Your task to perform on an android device: When is my next meeting? Image 0: 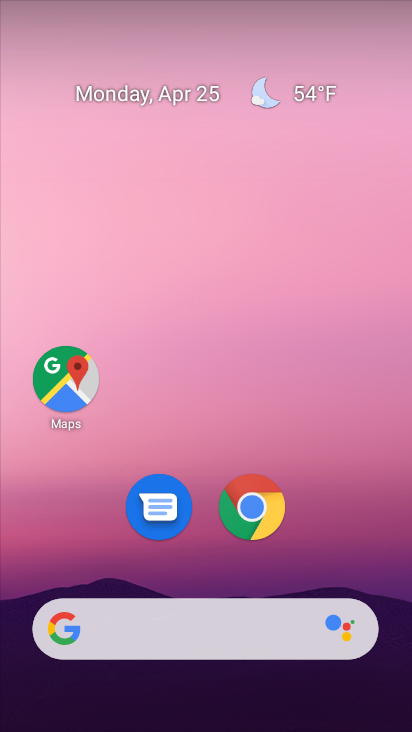
Step 0: drag from (337, 514) to (269, 48)
Your task to perform on an android device: When is my next meeting? Image 1: 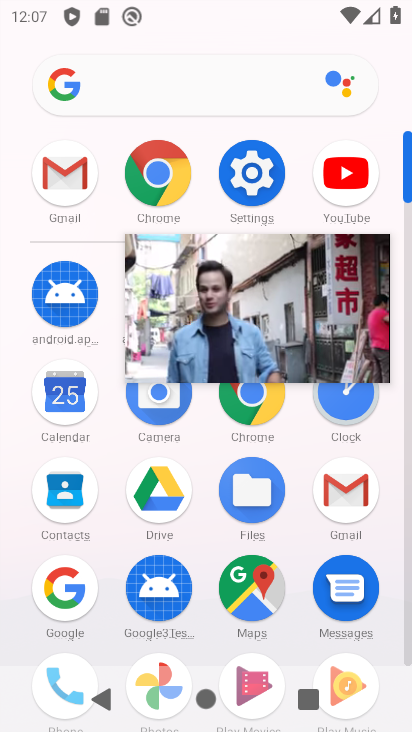
Step 1: click (289, 271)
Your task to perform on an android device: When is my next meeting? Image 2: 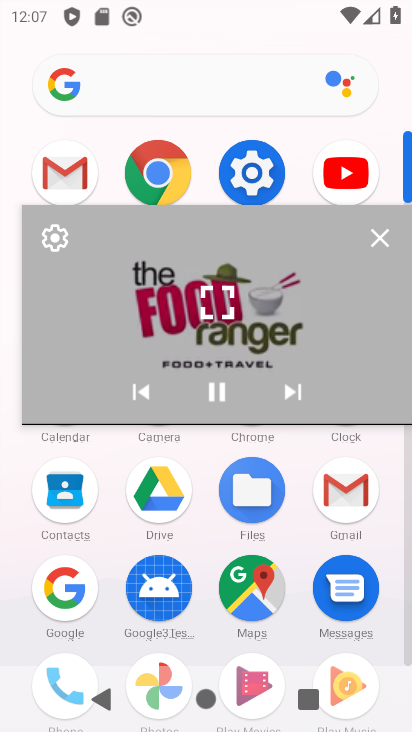
Step 2: click (376, 237)
Your task to perform on an android device: When is my next meeting? Image 3: 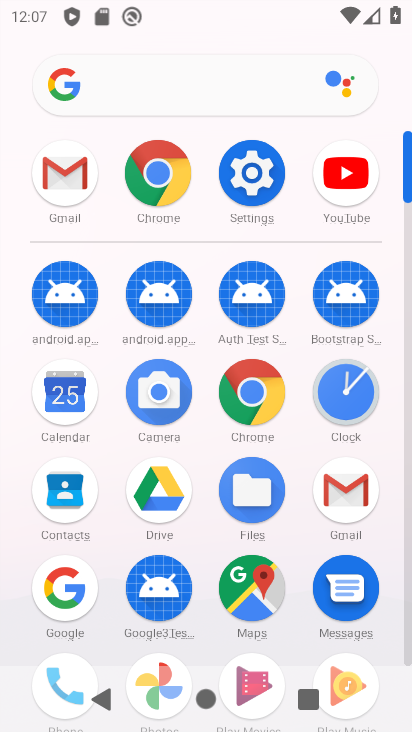
Step 3: drag from (4, 510) to (0, 341)
Your task to perform on an android device: When is my next meeting? Image 4: 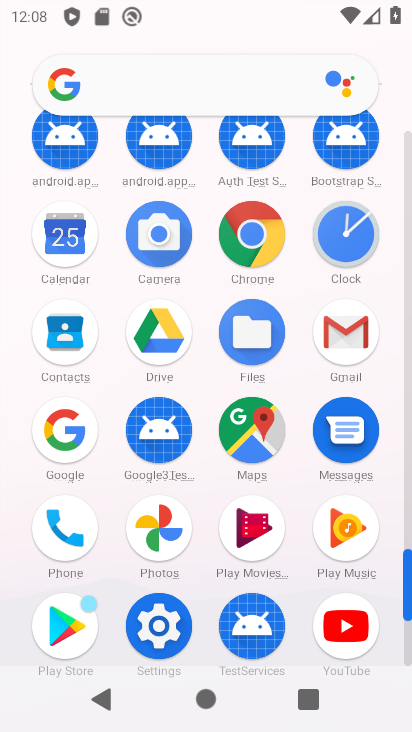
Step 4: drag from (10, 545) to (6, 374)
Your task to perform on an android device: When is my next meeting? Image 5: 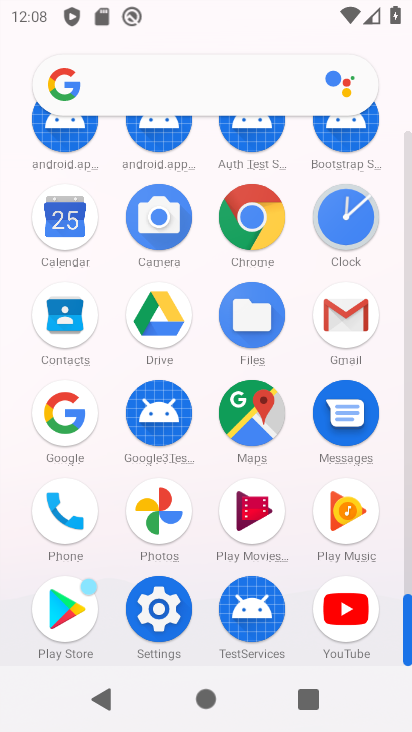
Step 5: click (58, 211)
Your task to perform on an android device: When is my next meeting? Image 6: 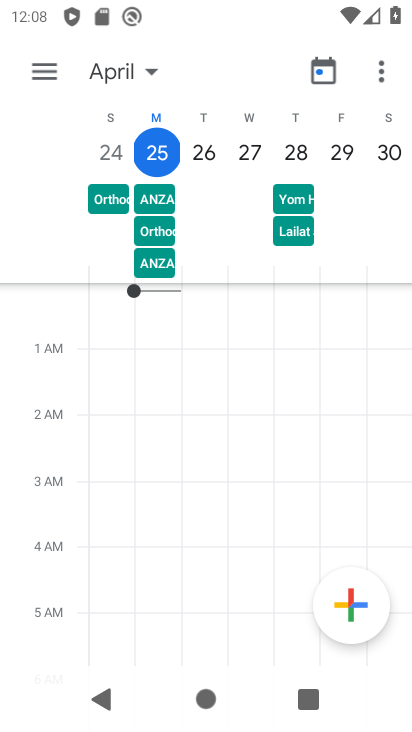
Step 6: click (41, 73)
Your task to perform on an android device: When is my next meeting? Image 7: 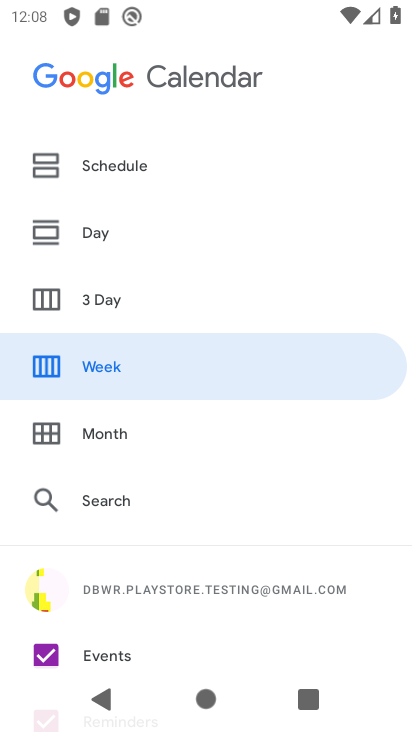
Step 7: drag from (152, 598) to (186, 207)
Your task to perform on an android device: When is my next meeting? Image 8: 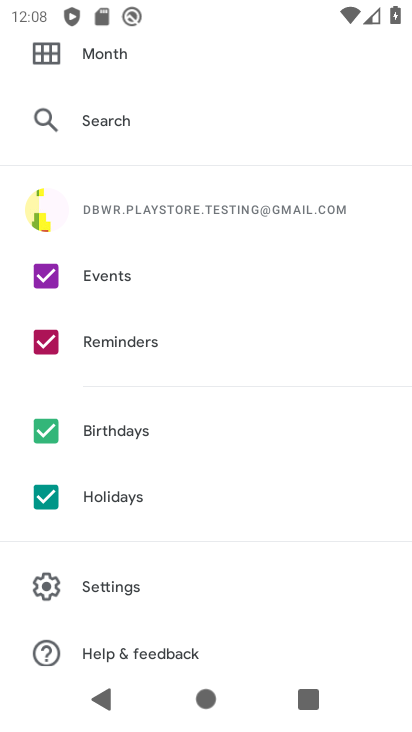
Step 8: click (38, 498)
Your task to perform on an android device: When is my next meeting? Image 9: 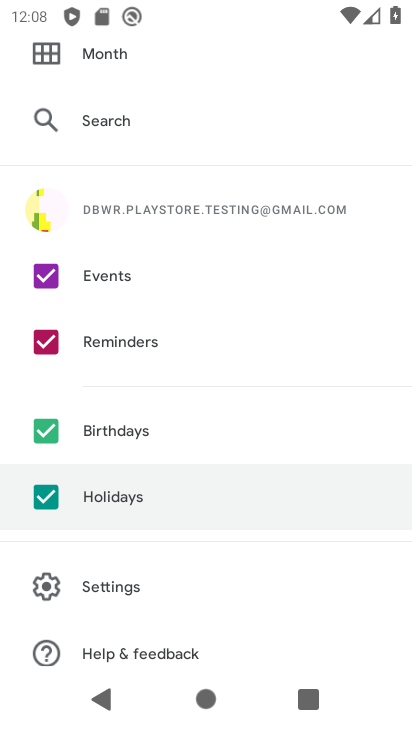
Step 9: click (45, 425)
Your task to perform on an android device: When is my next meeting? Image 10: 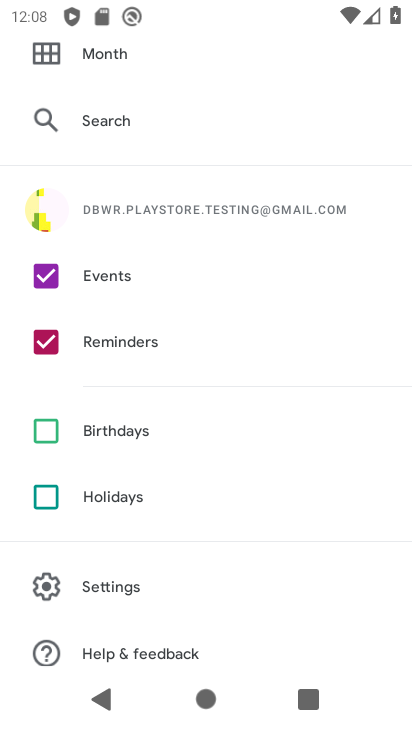
Step 10: drag from (224, 143) to (241, 517)
Your task to perform on an android device: When is my next meeting? Image 11: 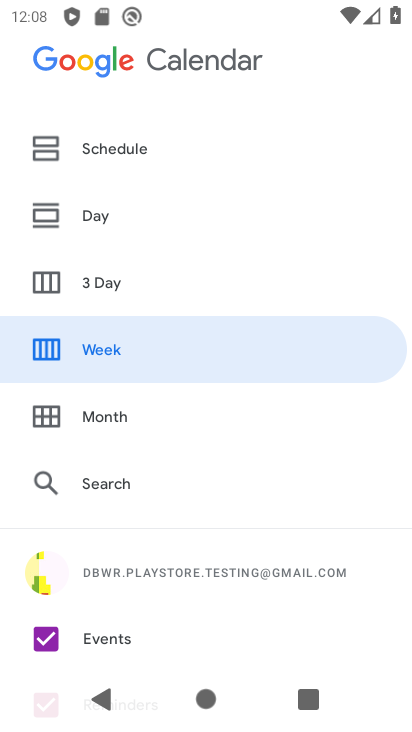
Step 11: click (125, 153)
Your task to perform on an android device: When is my next meeting? Image 12: 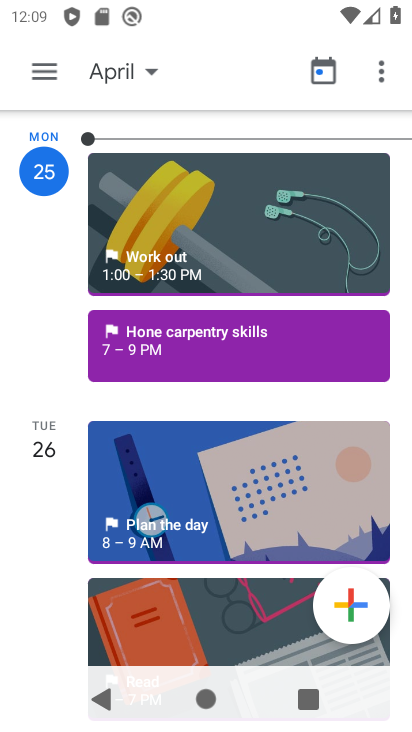
Step 12: task complete